Your task to perform on an android device: turn pop-ups off in chrome Image 0: 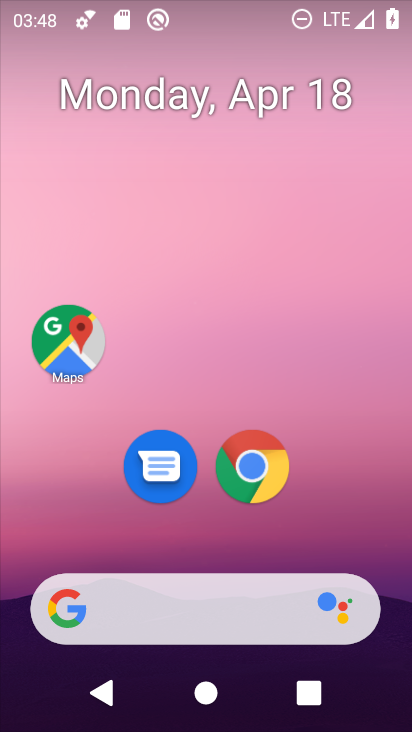
Step 0: drag from (343, 547) to (312, 201)
Your task to perform on an android device: turn pop-ups off in chrome Image 1: 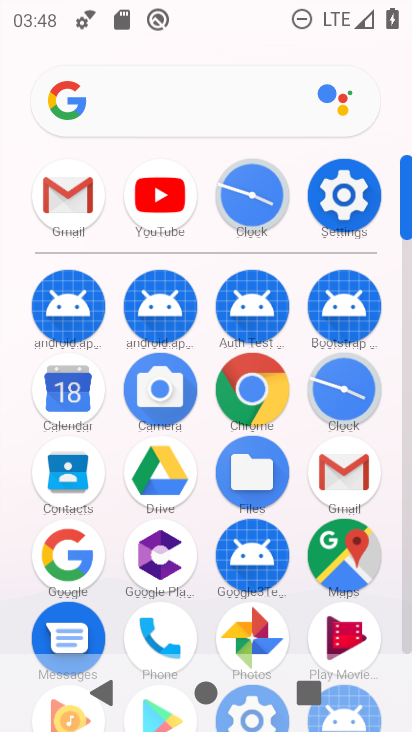
Step 1: click (252, 383)
Your task to perform on an android device: turn pop-ups off in chrome Image 2: 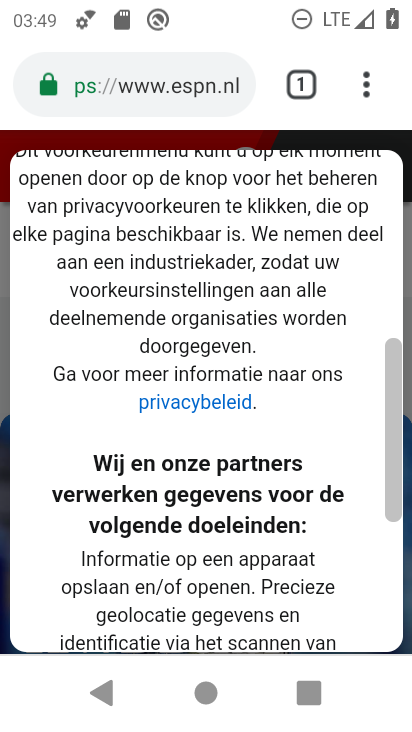
Step 2: click (381, 94)
Your task to perform on an android device: turn pop-ups off in chrome Image 3: 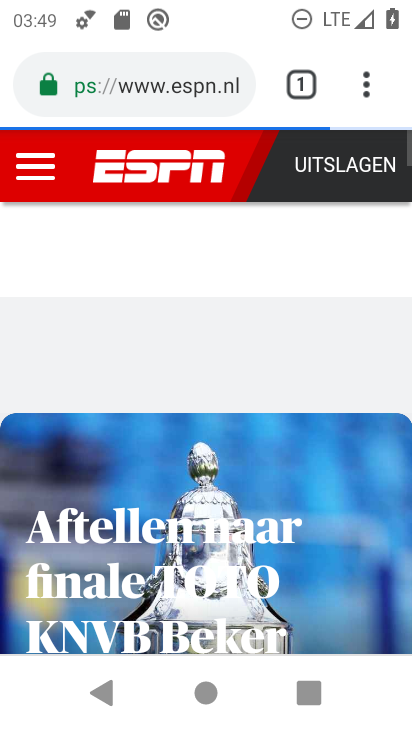
Step 3: click (353, 95)
Your task to perform on an android device: turn pop-ups off in chrome Image 4: 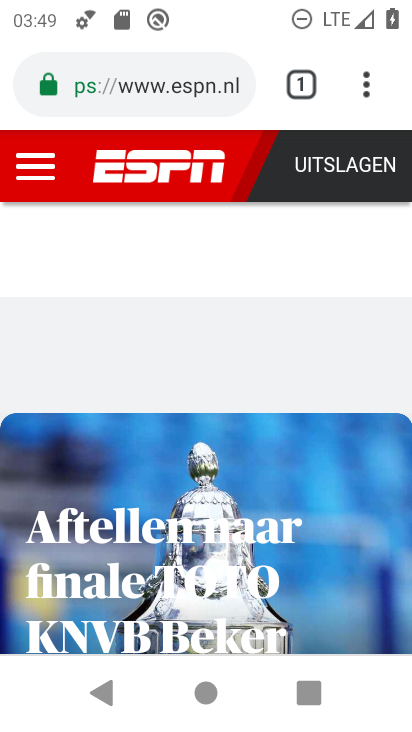
Step 4: click (355, 72)
Your task to perform on an android device: turn pop-ups off in chrome Image 5: 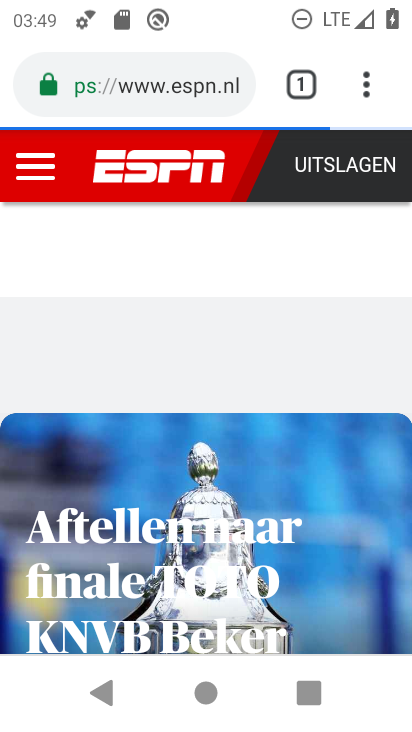
Step 5: click (369, 95)
Your task to perform on an android device: turn pop-ups off in chrome Image 6: 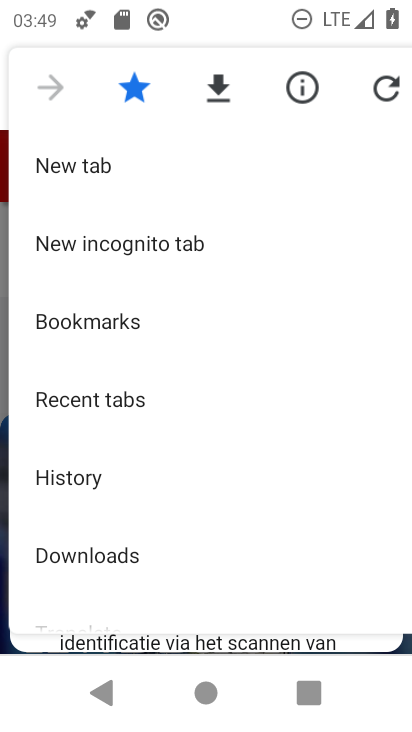
Step 6: drag from (256, 504) to (262, 364)
Your task to perform on an android device: turn pop-ups off in chrome Image 7: 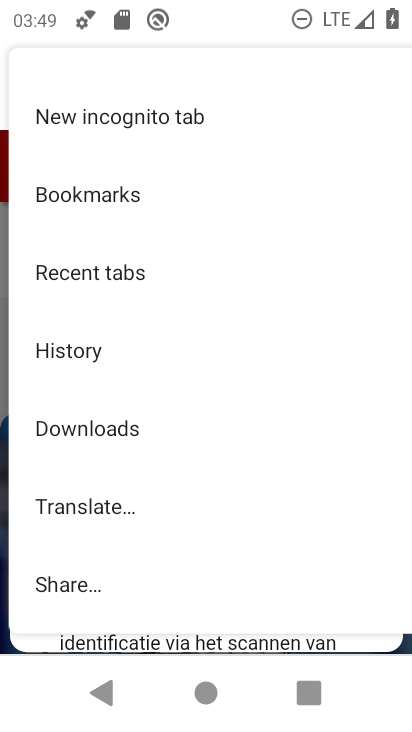
Step 7: drag from (225, 490) to (246, 354)
Your task to perform on an android device: turn pop-ups off in chrome Image 8: 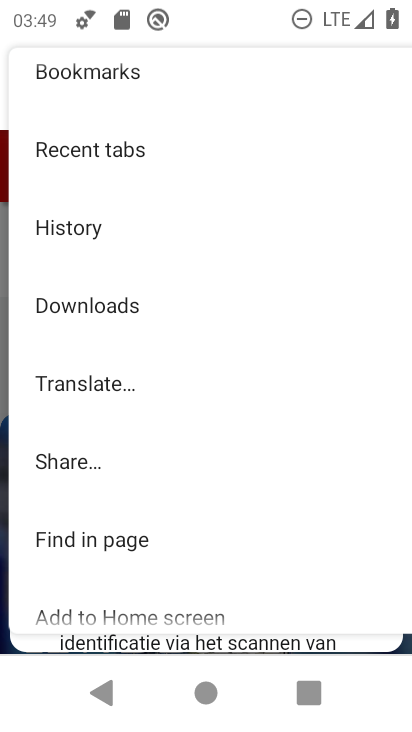
Step 8: drag from (189, 542) to (222, 339)
Your task to perform on an android device: turn pop-ups off in chrome Image 9: 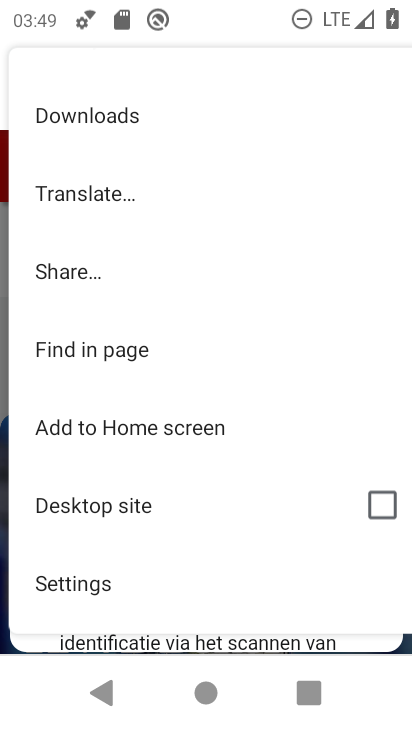
Step 9: click (164, 571)
Your task to perform on an android device: turn pop-ups off in chrome Image 10: 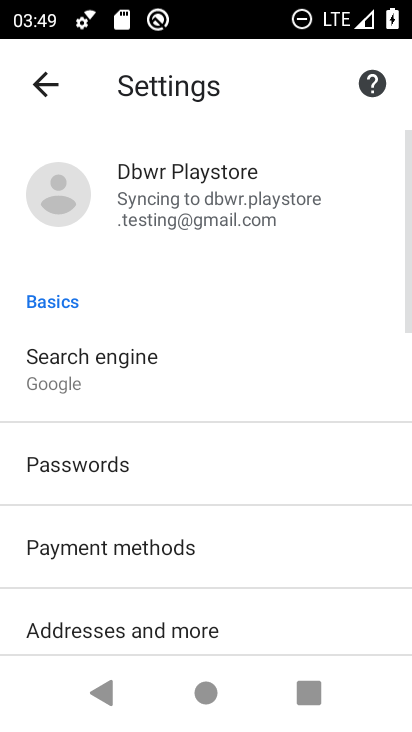
Step 10: drag from (213, 571) to (230, 225)
Your task to perform on an android device: turn pop-ups off in chrome Image 11: 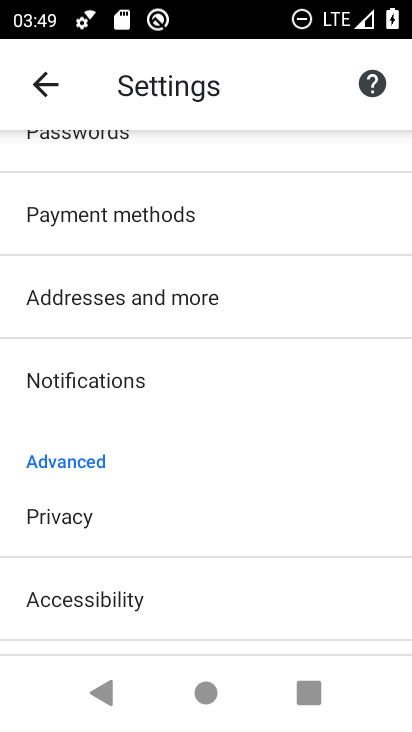
Step 11: drag from (201, 592) to (230, 323)
Your task to perform on an android device: turn pop-ups off in chrome Image 12: 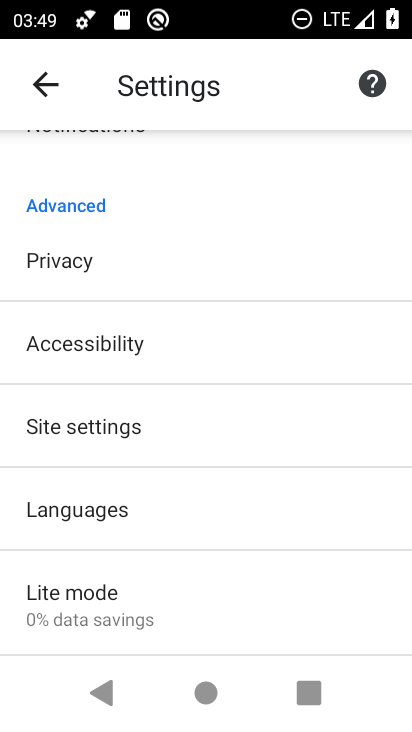
Step 12: click (219, 450)
Your task to perform on an android device: turn pop-ups off in chrome Image 13: 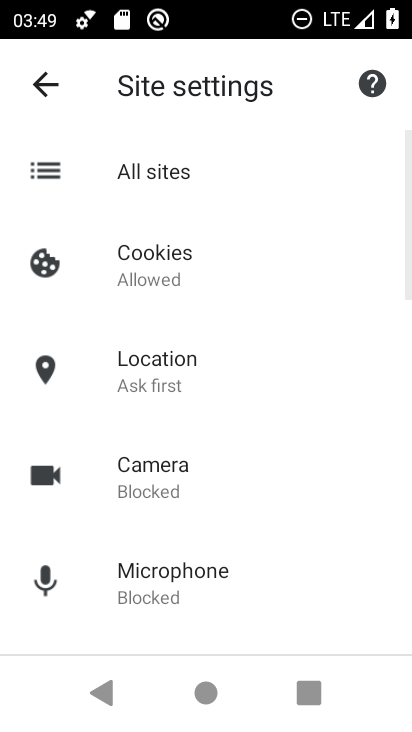
Step 13: drag from (214, 525) to (240, 225)
Your task to perform on an android device: turn pop-ups off in chrome Image 14: 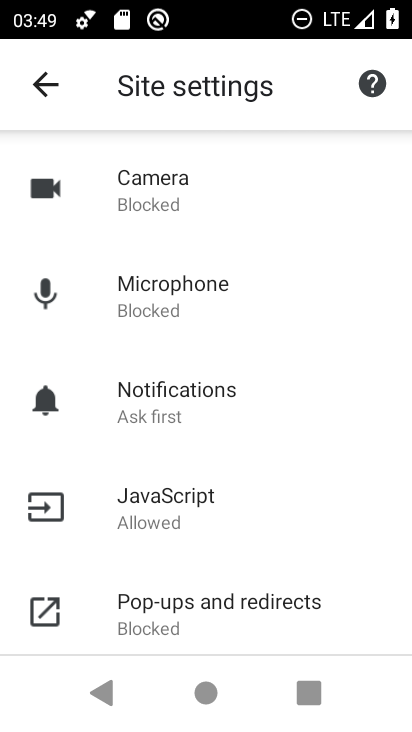
Step 14: click (200, 615)
Your task to perform on an android device: turn pop-ups off in chrome Image 15: 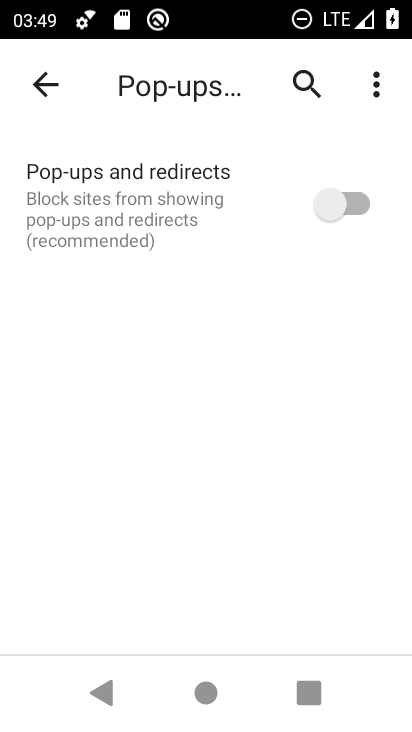
Step 15: task complete